Your task to perform on an android device: turn on airplane mode Image 0: 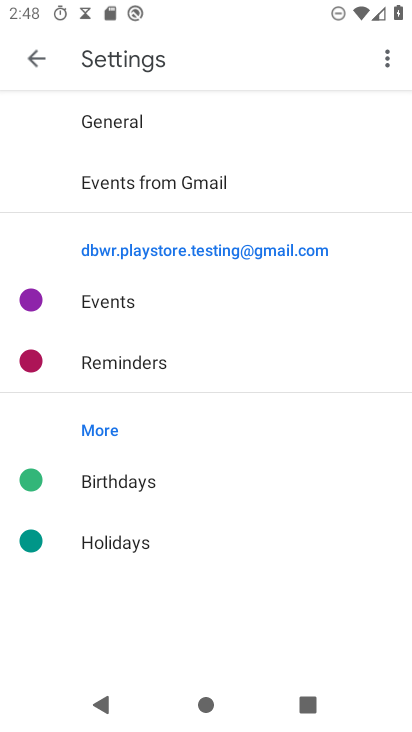
Step 0: press home button
Your task to perform on an android device: turn on airplane mode Image 1: 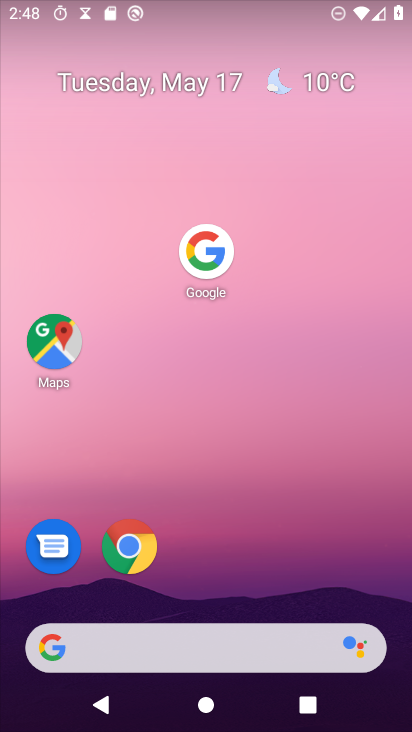
Step 1: drag from (189, 663) to (322, 6)
Your task to perform on an android device: turn on airplane mode Image 2: 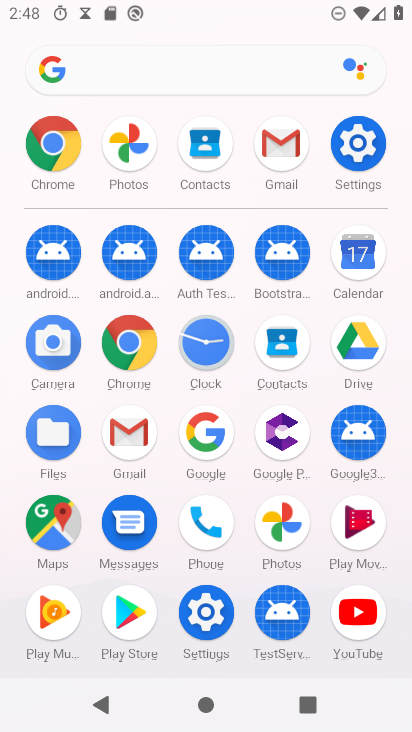
Step 2: click (361, 144)
Your task to perform on an android device: turn on airplane mode Image 3: 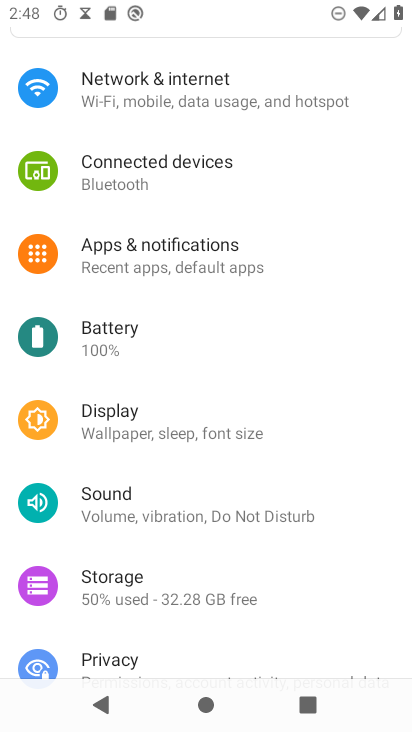
Step 3: drag from (338, 130) to (231, 522)
Your task to perform on an android device: turn on airplane mode Image 4: 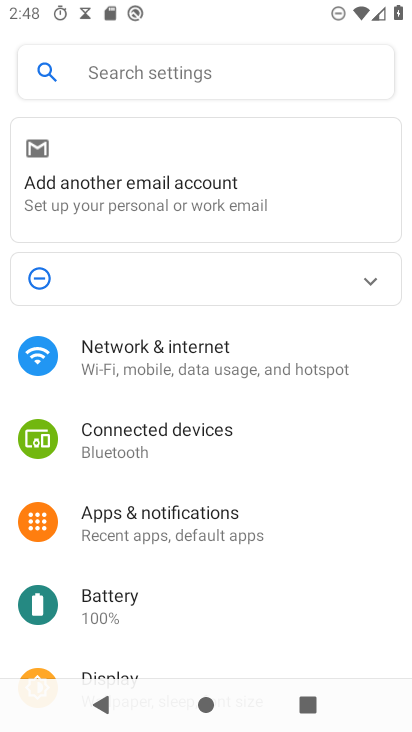
Step 4: click (196, 369)
Your task to perform on an android device: turn on airplane mode Image 5: 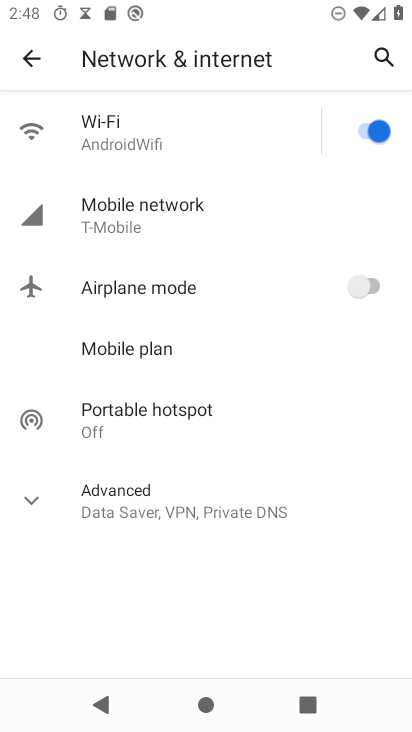
Step 5: click (376, 281)
Your task to perform on an android device: turn on airplane mode Image 6: 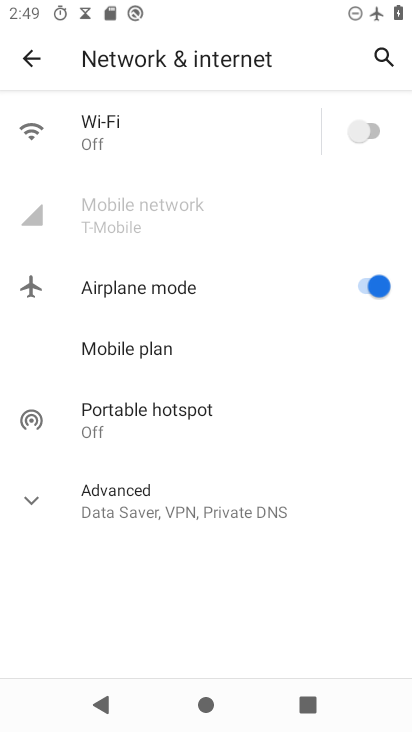
Step 6: task complete